Your task to perform on an android device: allow notifications from all sites in the chrome app Image 0: 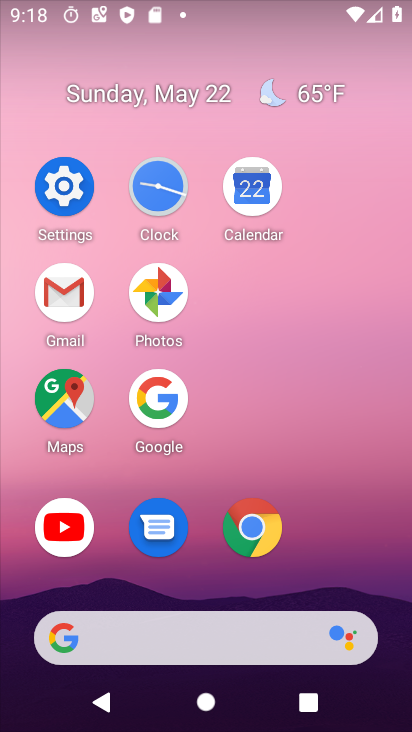
Step 0: click (245, 537)
Your task to perform on an android device: allow notifications from all sites in the chrome app Image 1: 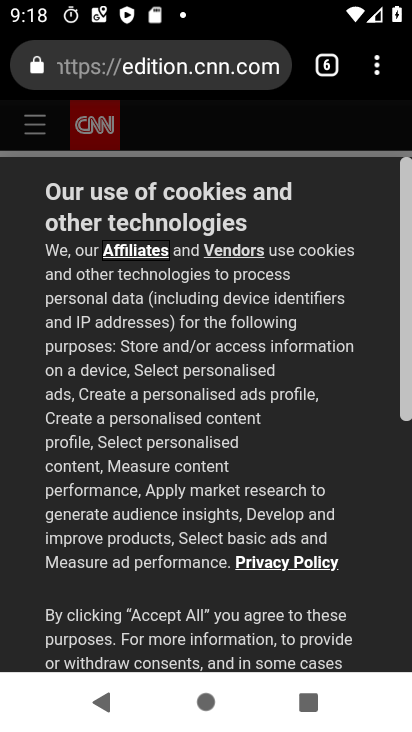
Step 1: click (374, 72)
Your task to perform on an android device: allow notifications from all sites in the chrome app Image 2: 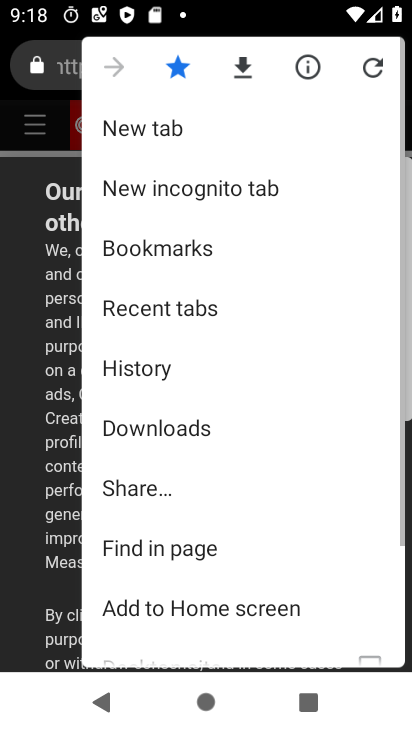
Step 2: drag from (194, 485) to (218, 111)
Your task to perform on an android device: allow notifications from all sites in the chrome app Image 3: 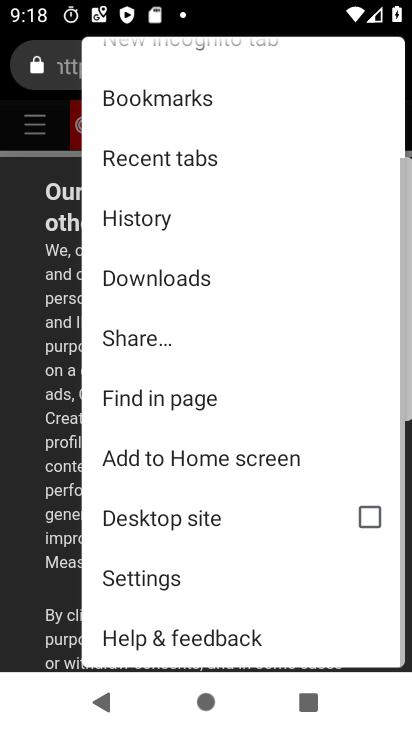
Step 3: click (205, 555)
Your task to perform on an android device: allow notifications from all sites in the chrome app Image 4: 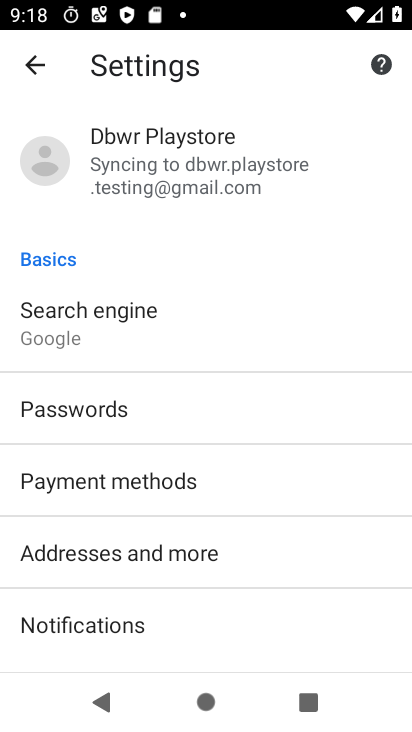
Step 4: drag from (204, 554) to (209, 277)
Your task to perform on an android device: allow notifications from all sites in the chrome app Image 5: 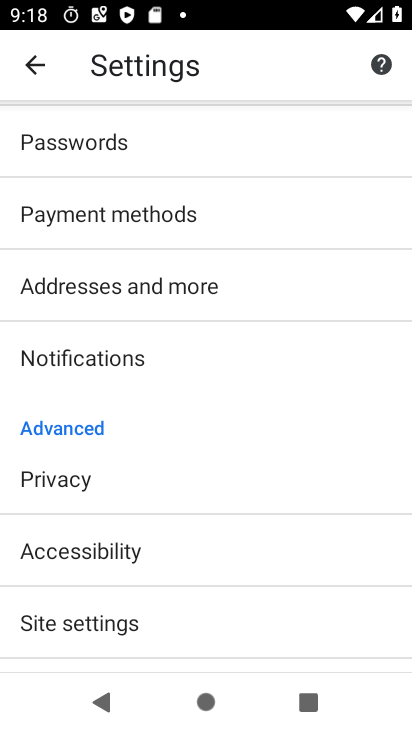
Step 5: drag from (153, 487) to (177, 190)
Your task to perform on an android device: allow notifications from all sites in the chrome app Image 6: 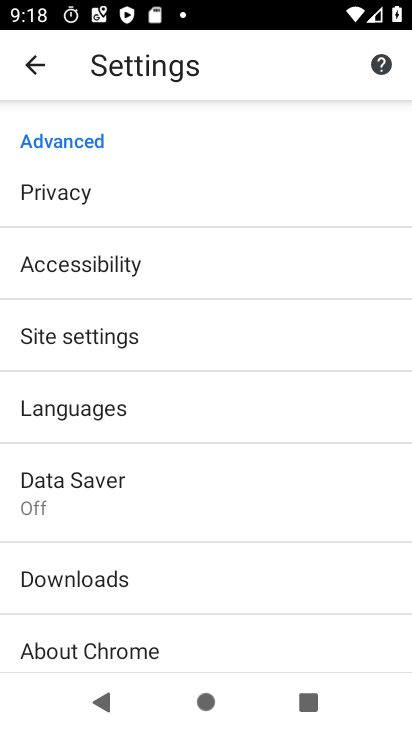
Step 6: click (181, 351)
Your task to perform on an android device: allow notifications from all sites in the chrome app Image 7: 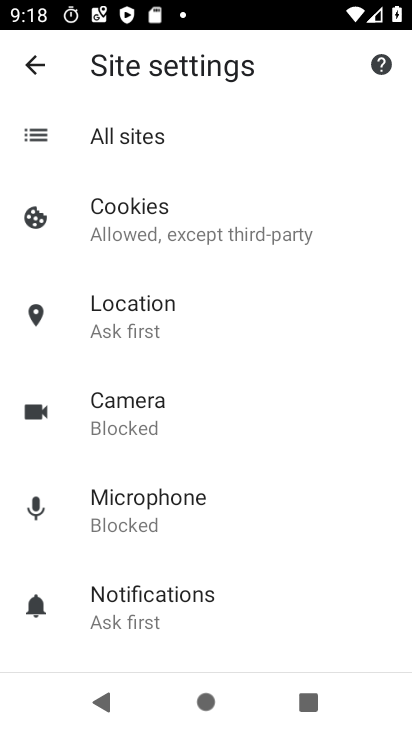
Step 7: click (189, 213)
Your task to perform on an android device: allow notifications from all sites in the chrome app Image 8: 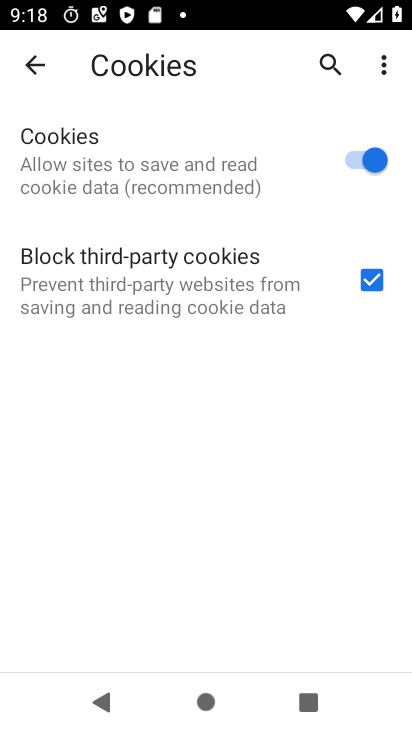
Step 8: task complete